Your task to perform on an android device: Open the Play Movies app and select the watchlist tab. Image 0: 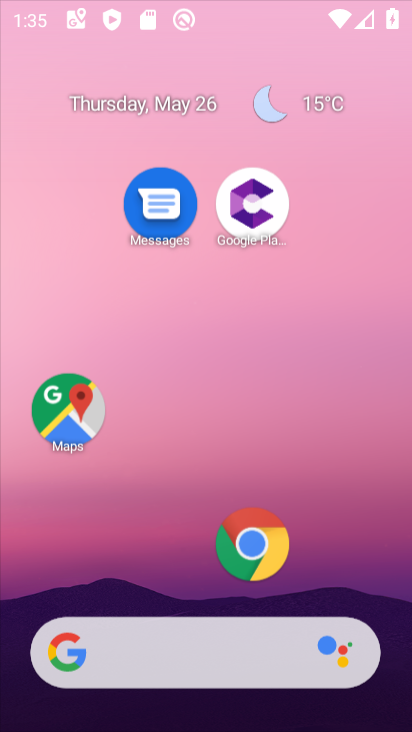
Step 0: click (228, 4)
Your task to perform on an android device: Open the Play Movies app and select the watchlist tab. Image 1: 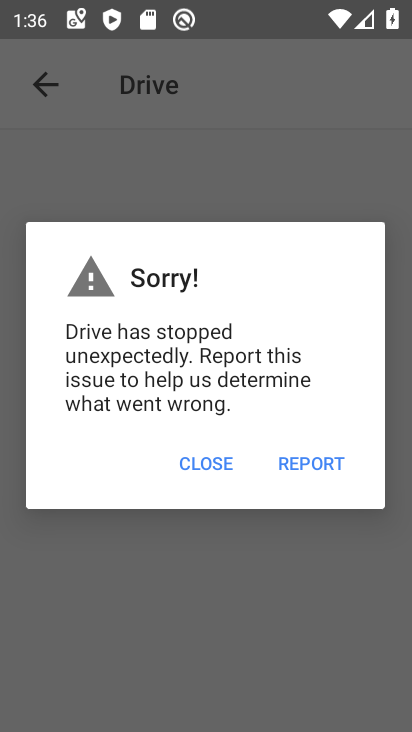
Step 1: press home button
Your task to perform on an android device: Open the Play Movies app and select the watchlist tab. Image 2: 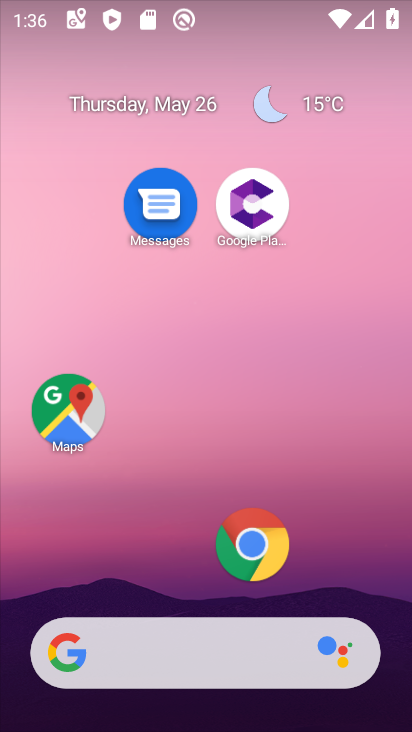
Step 2: drag from (195, 564) to (210, 97)
Your task to perform on an android device: Open the Play Movies app and select the watchlist tab. Image 3: 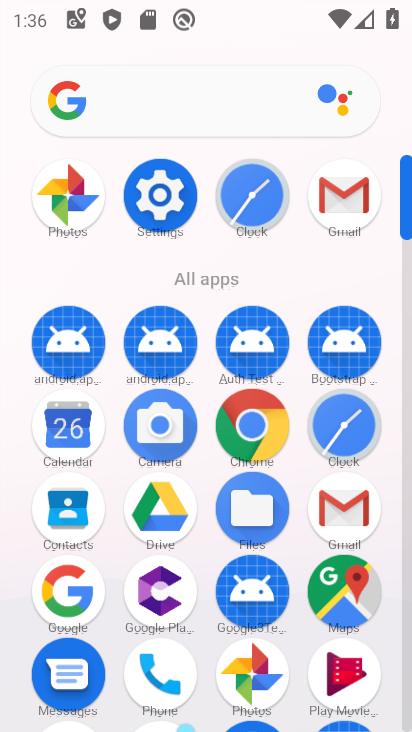
Step 3: click (350, 674)
Your task to perform on an android device: Open the Play Movies app and select the watchlist tab. Image 4: 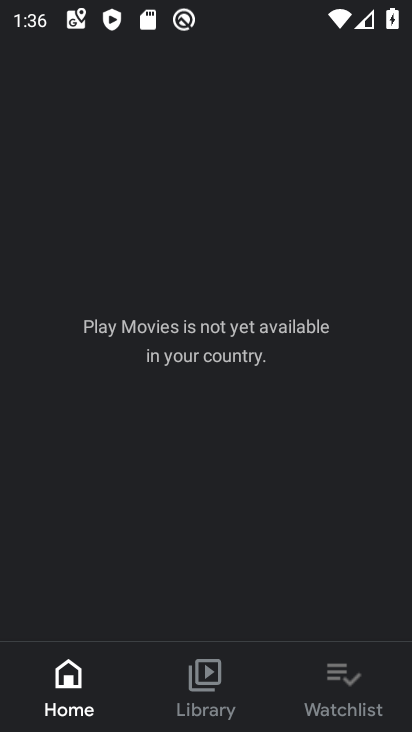
Step 4: click (365, 691)
Your task to perform on an android device: Open the Play Movies app and select the watchlist tab. Image 5: 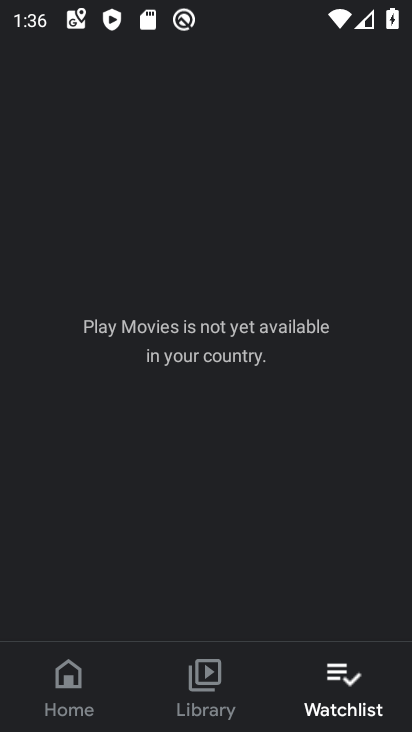
Step 5: task complete